Your task to perform on an android device: check android version Image 0: 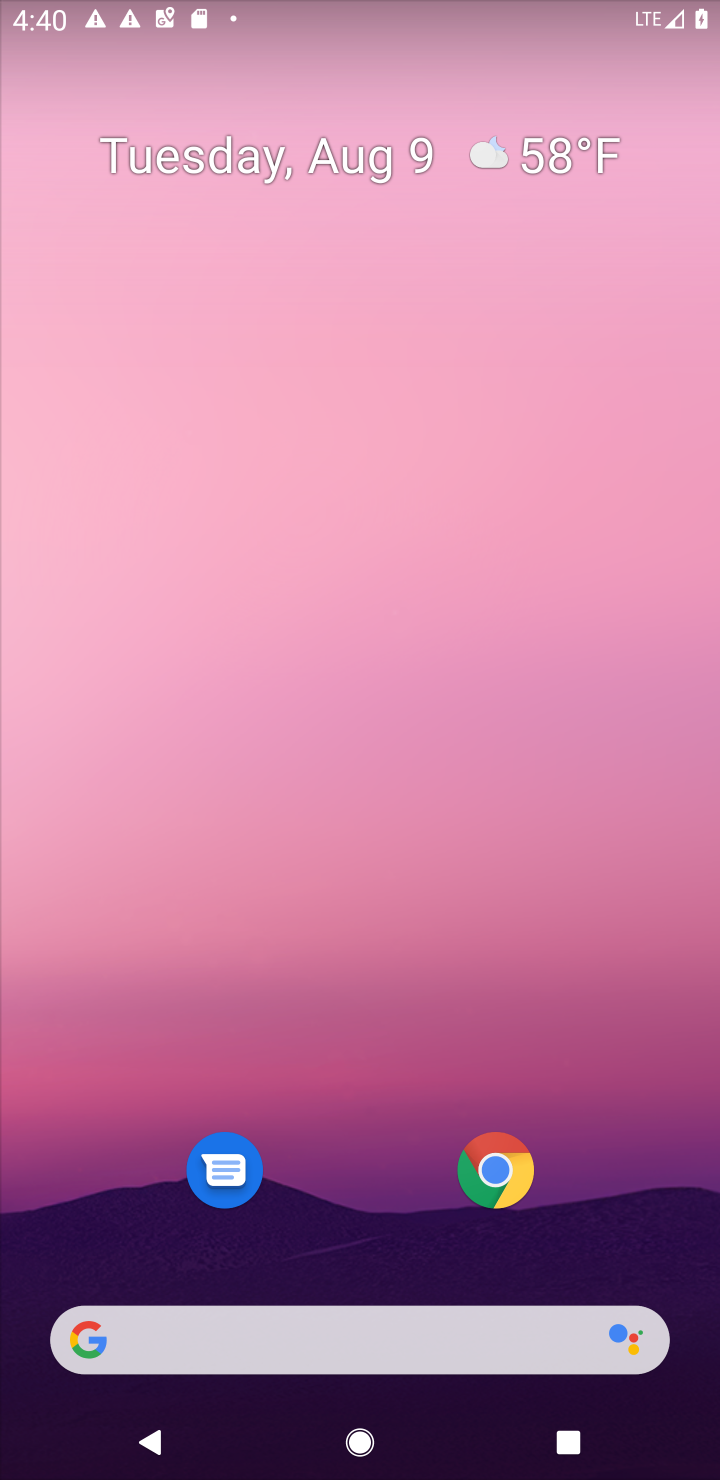
Step 0: press home button
Your task to perform on an android device: check android version Image 1: 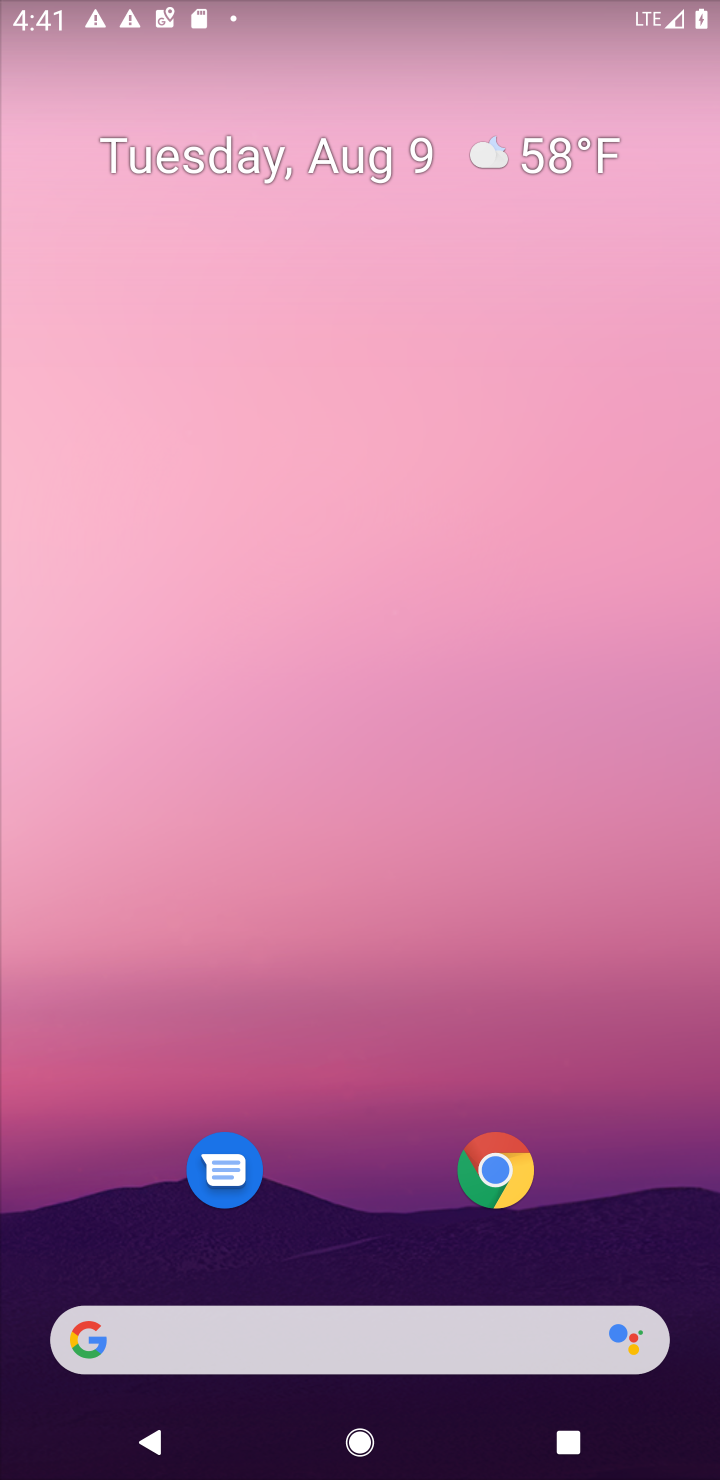
Step 1: drag from (375, 1209) to (333, 78)
Your task to perform on an android device: check android version Image 2: 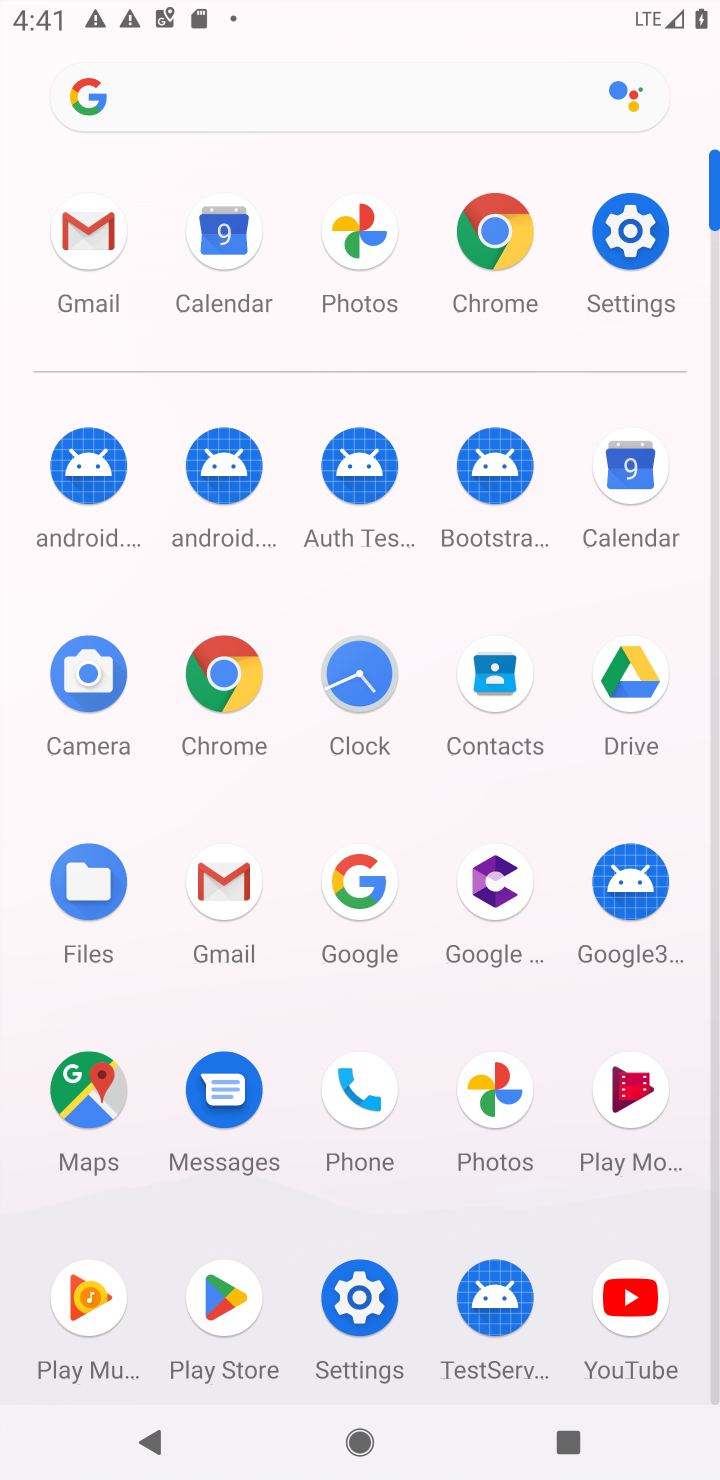
Step 2: click (636, 223)
Your task to perform on an android device: check android version Image 3: 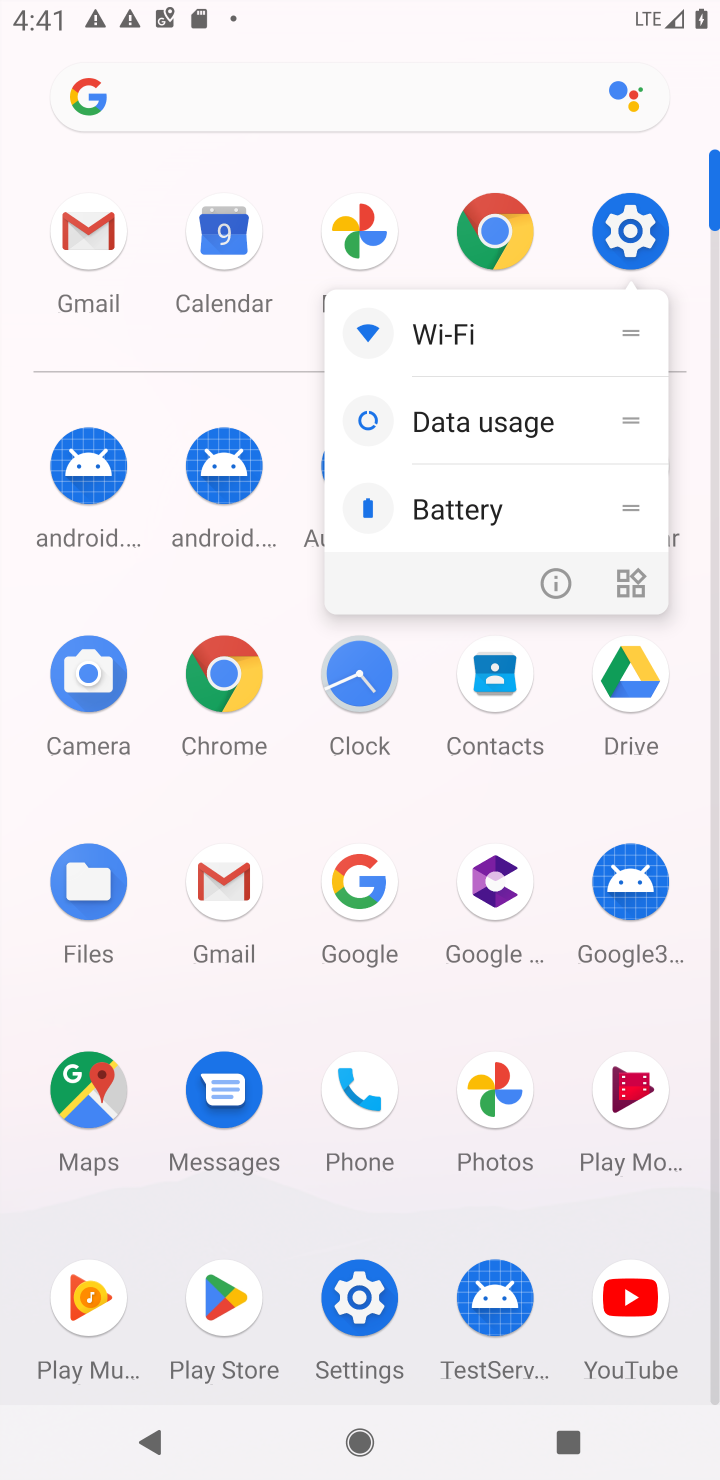
Step 3: click (631, 246)
Your task to perform on an android device: check android version Image 4: 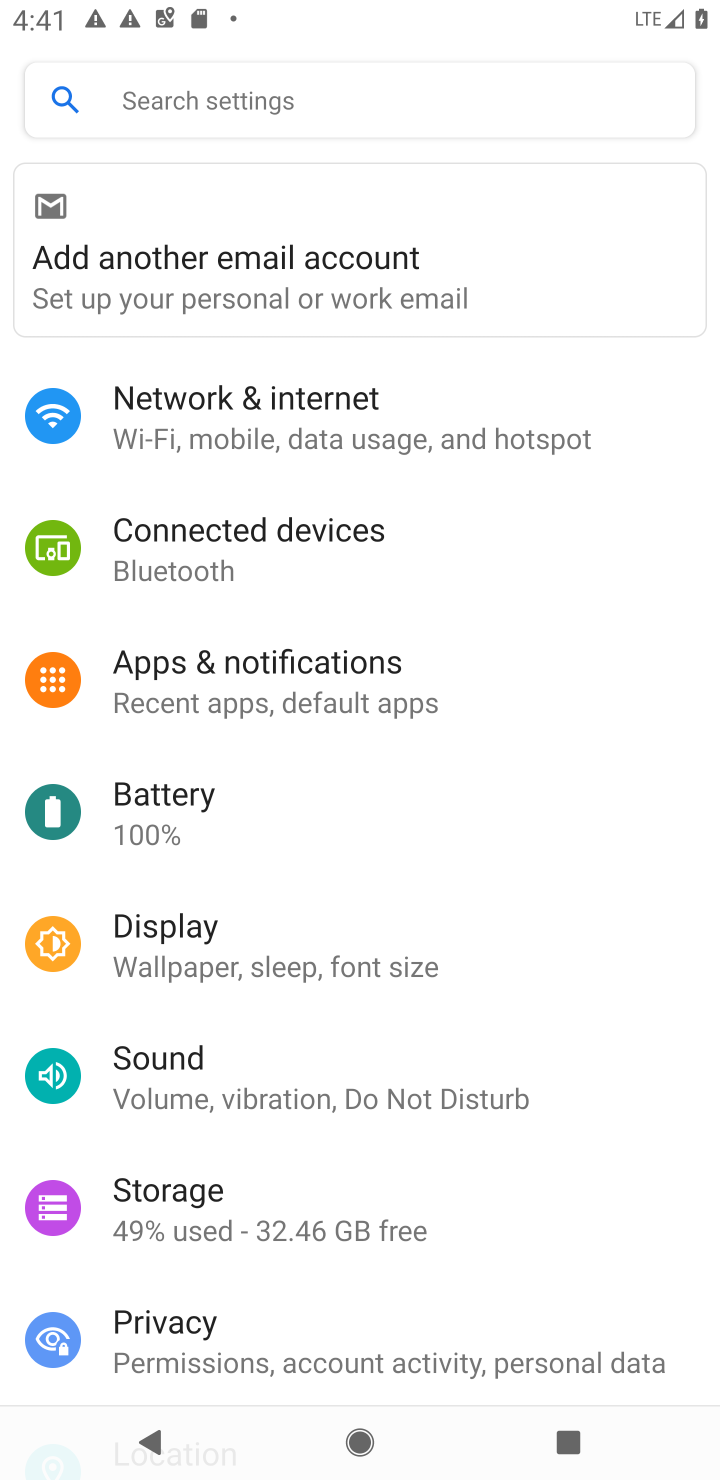
Step 4: drag from (320, 1277) to (323, 155)
Your task to perform on an android device: check android version Image 5: 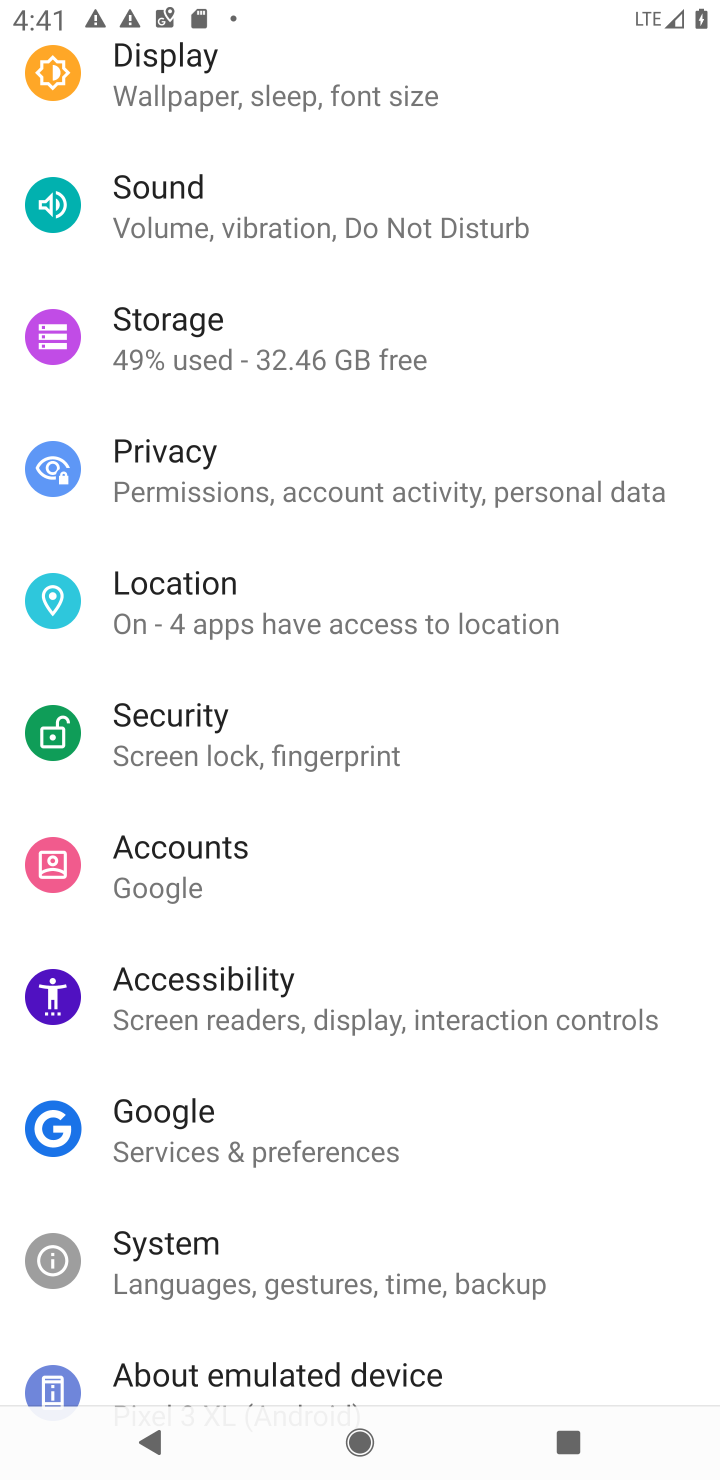
Step 5: click (243, 1373)
Your task to perform on an android device: check android version Image 6: 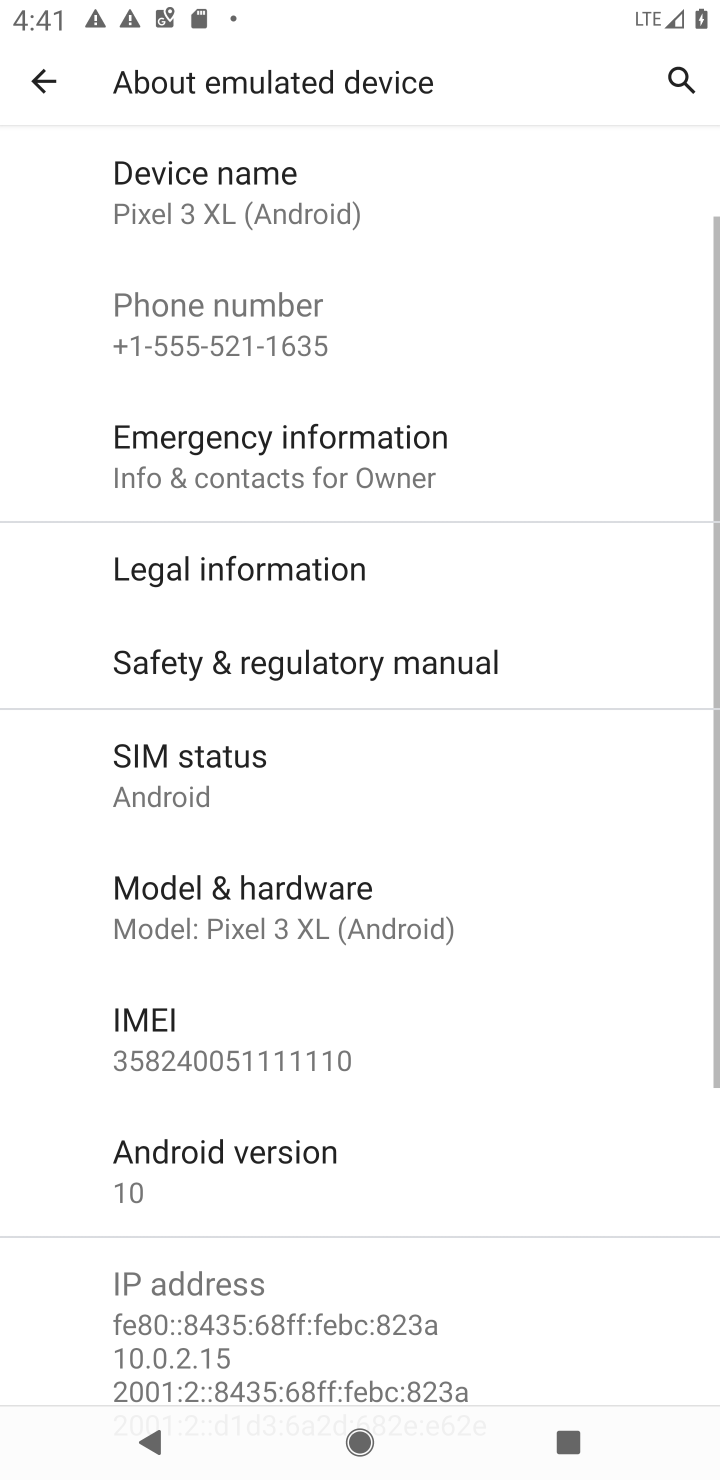
Step 6: click (234, 1185)
Your task to perform on an android device: check android version Image 7: 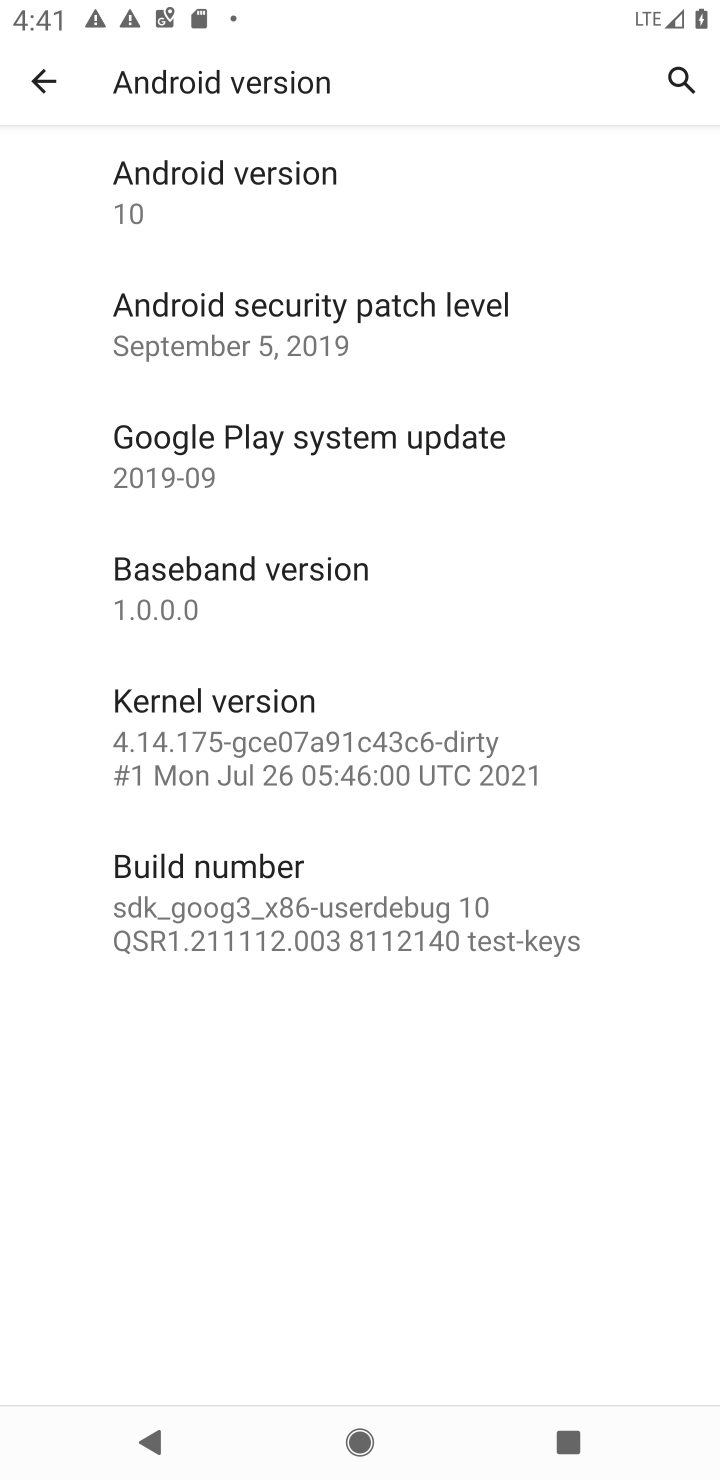
Step 7: task complete